Your task to perform on an android device: Search for hotels in Seattle Image 0: 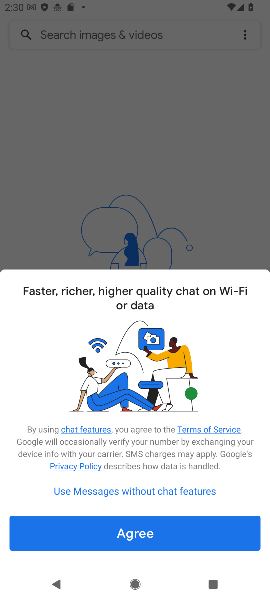
Step 0: press home button
Your task to perform on an android device: Search for hotels in Seattle Image 1: 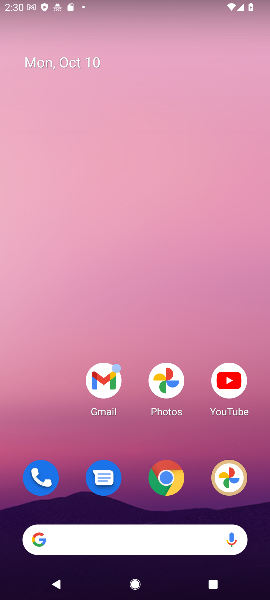
Step 1: click (173, 480)
Your task to perform on an android device: Search for hotels in Seattle Image 2: 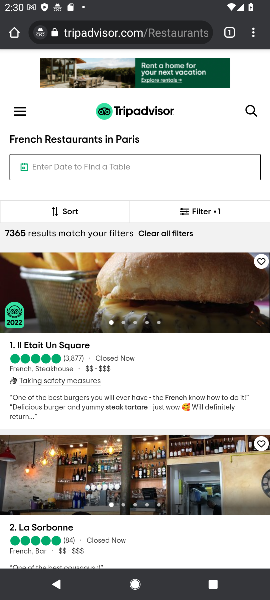
Step 2: click (110, 30)
Your task to perform on an android device: Search for hotels in Seattle Image 3: 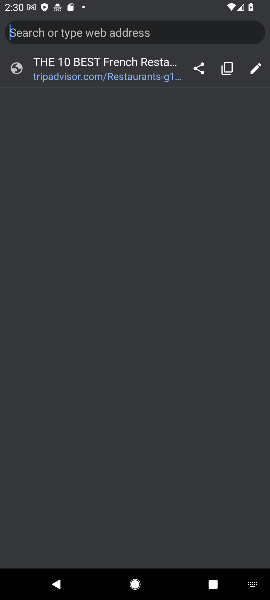
Step 3: type "hotels in Seattle"
Your task to perform on an android device: Search for hotels in Seattle Image 4: 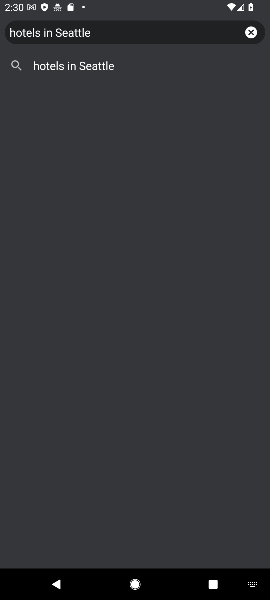
Step 4: click (67, 62)
Your task to perform on an android device: Search for hotels in Seattle Image 5: 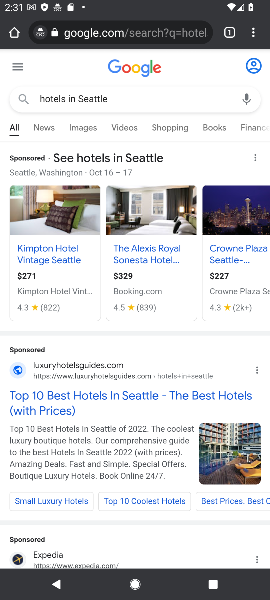
Step 5: task complete